Your task to perform on an android device: change the clock style Image 0: 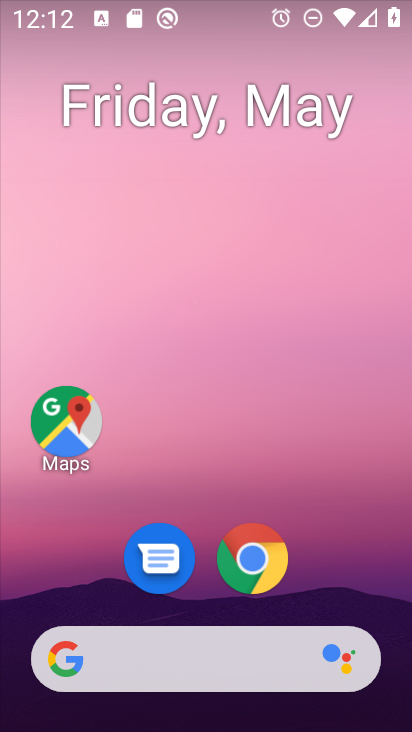
Step 0: drag from (392, 625) to (369, 159)
Your task to perform on an android device: change the clock style Image 1: 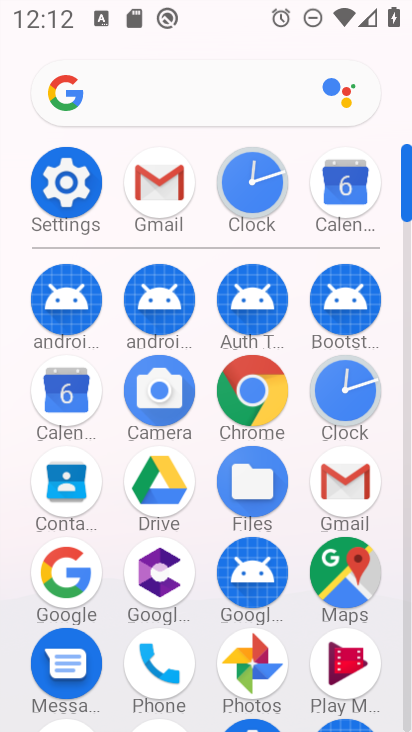
Step 1: click (408, 712)
Your task to perform on an android device: change the clock style Image 2: 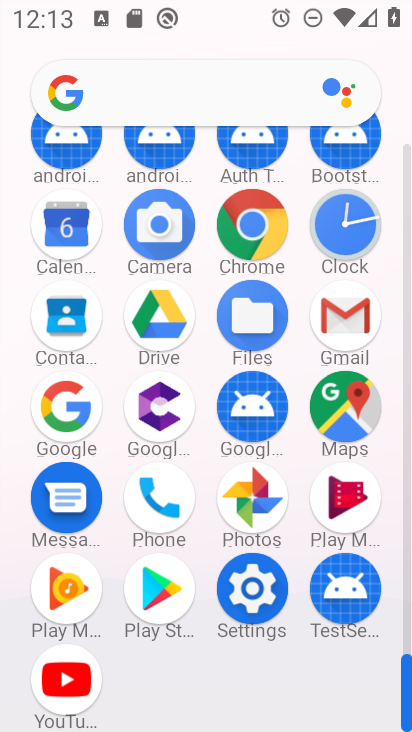
Step 2: click (340, 218)
Your task to perform on an android device: change the clock style Image 3: 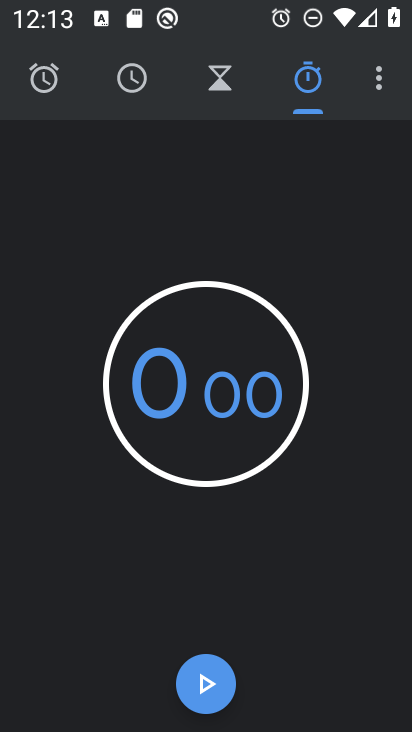
Step 3: click (374, 82)
Your task to perform on an android device: change the clock style Image 4: 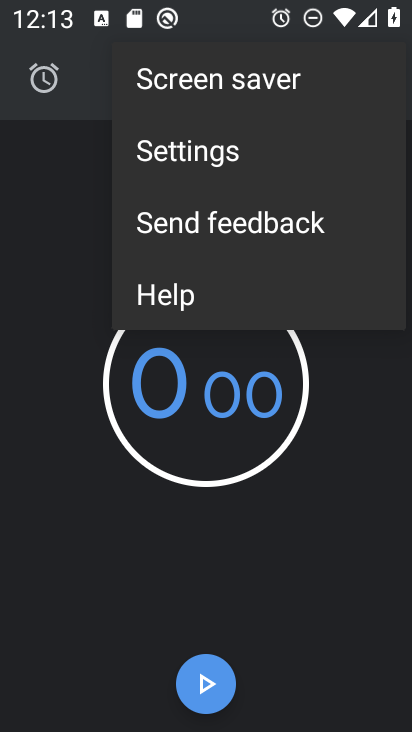
Step 4: click (174, 148)
Your task to perform on an android device: change the clock style Image 5: 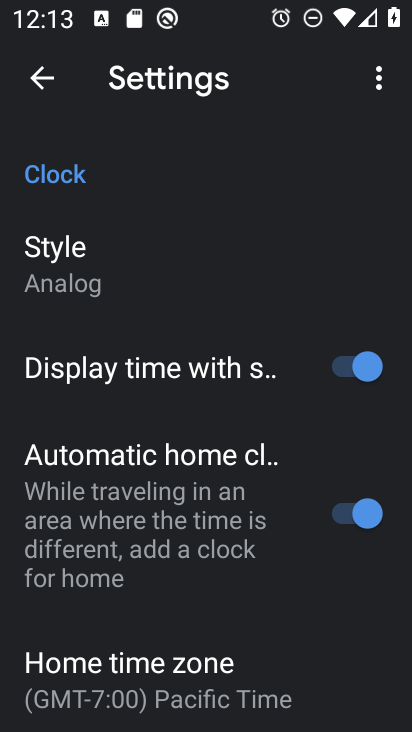
Step 5: click (50, 255)
Your task to perform on an android device: change the clock style Image 6: 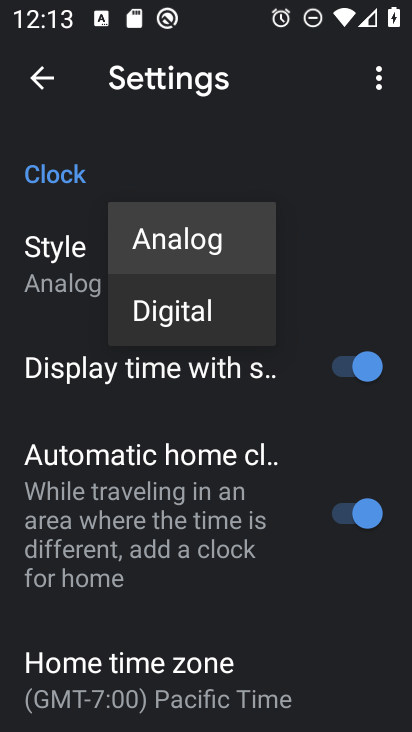
Step 6: click (180, 307)
Your task to perform on an android device: change the clock style Image 7: 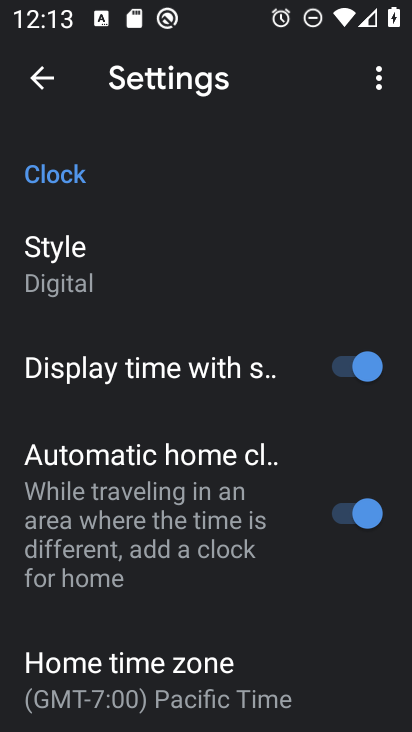
Step 7: task complete